Your task to perform on an android device: Open calendar and show me the first week of next month Image 0: 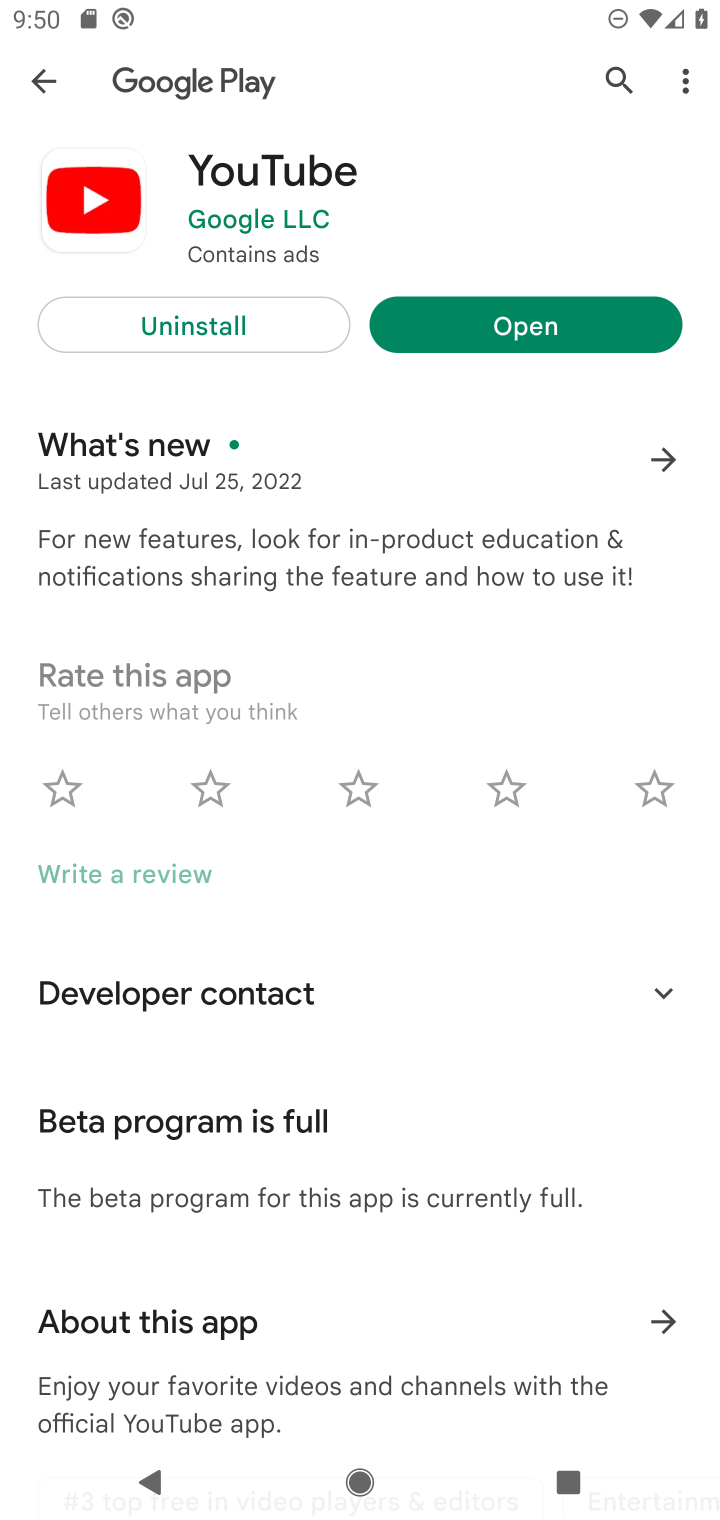
Step 0: press home button
Your task to perform on an android device: Open calendar and show me the first week of next month Image 1: 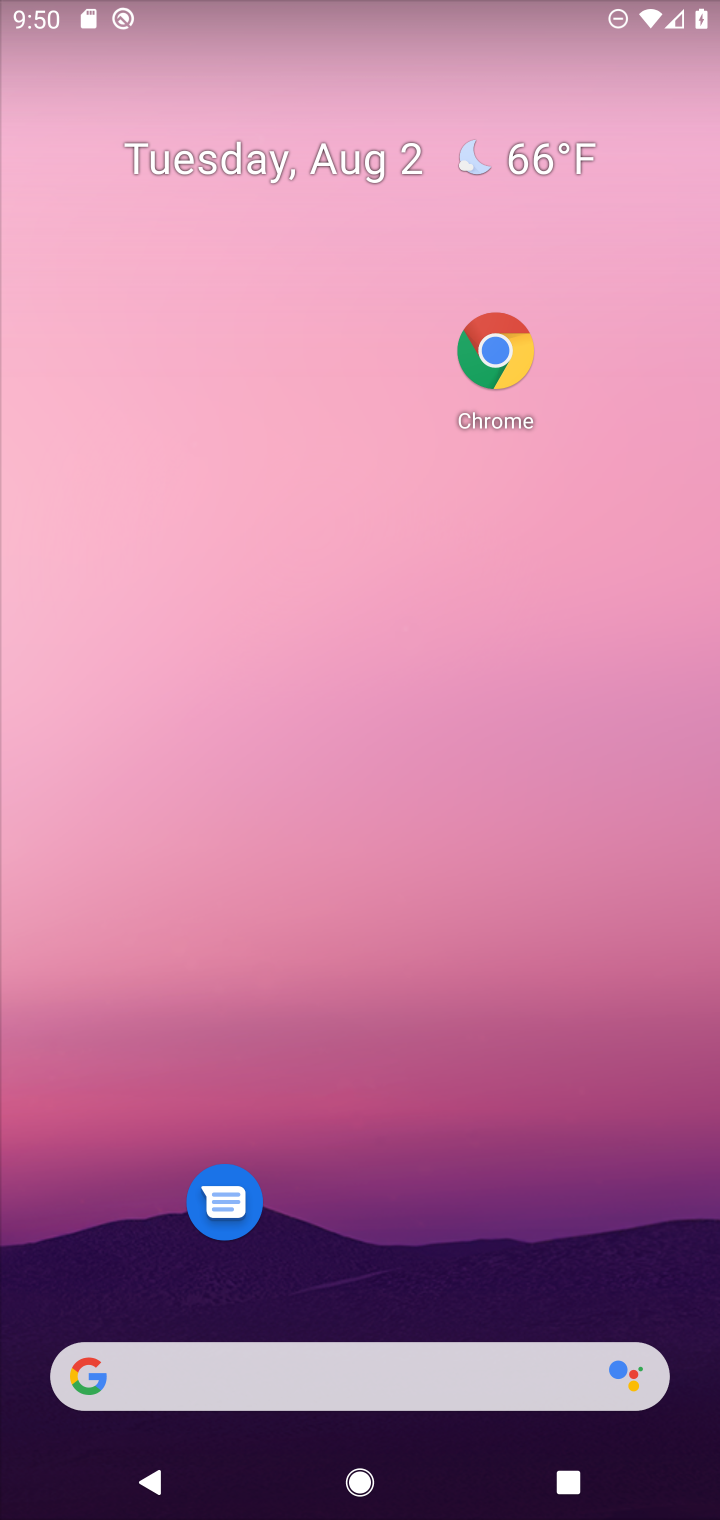
Step 1: drag from (378, 1312) to (369, 103)
Your task to perform on an android device: Open calendar and show me the first week of next month Image 2: 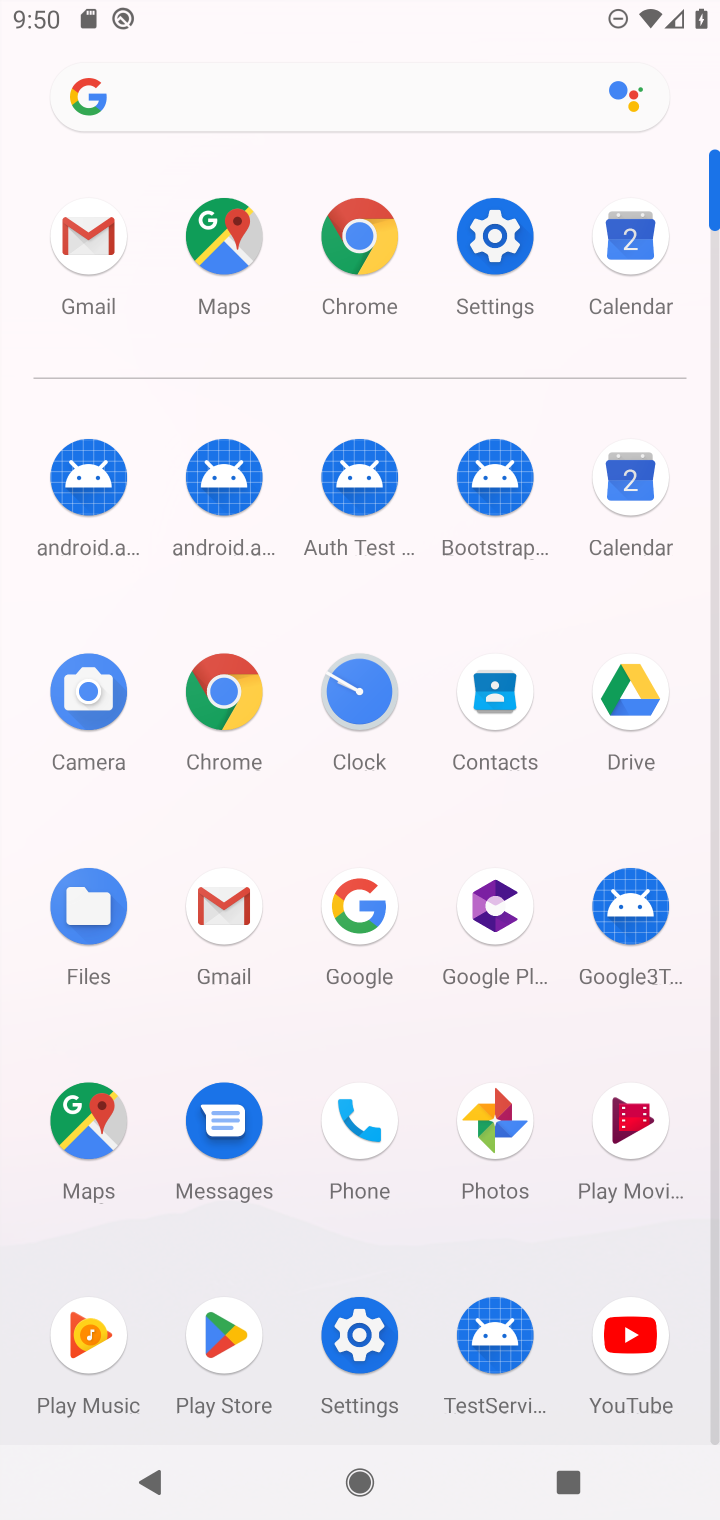
Step 2: click (629, 250)
Your task to perform on an android device: Open calendar and show me the first week of next month Image 3: 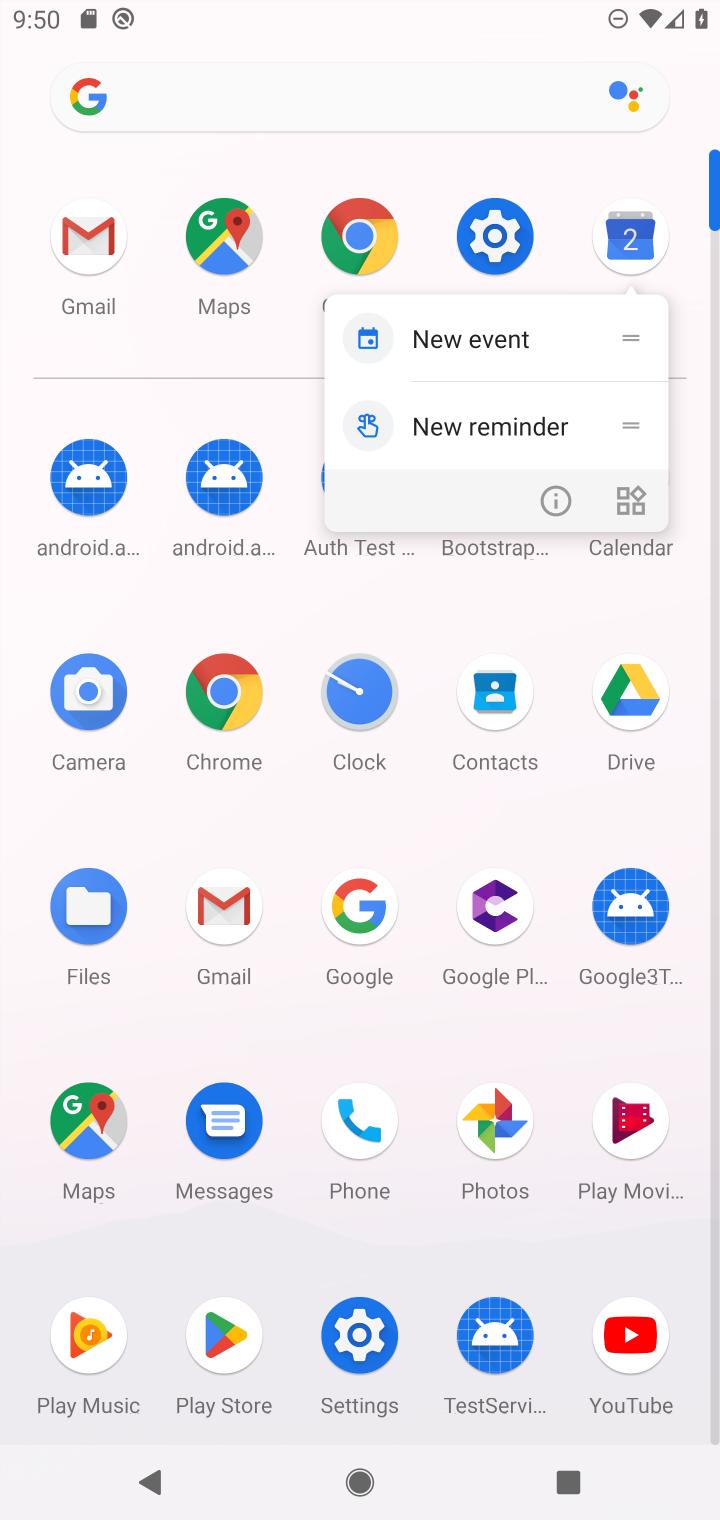
Step 3: click (629, 250)
Your task to perform on an android device: Open calendar and show me the first week of next month Image 4: 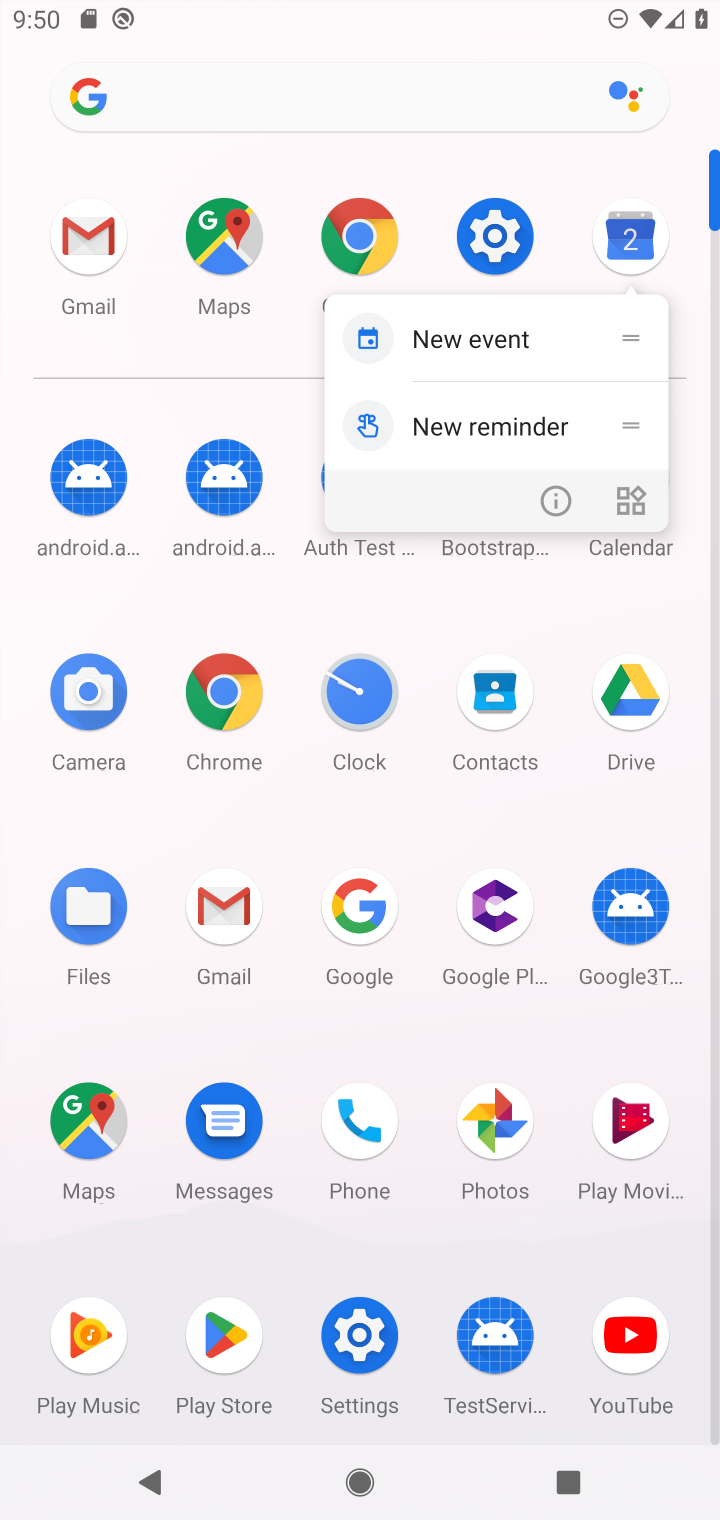
Step 4: click (629, 250)
Your task to perform on an android device: Open calendar and show me the first week of next month Image 5: 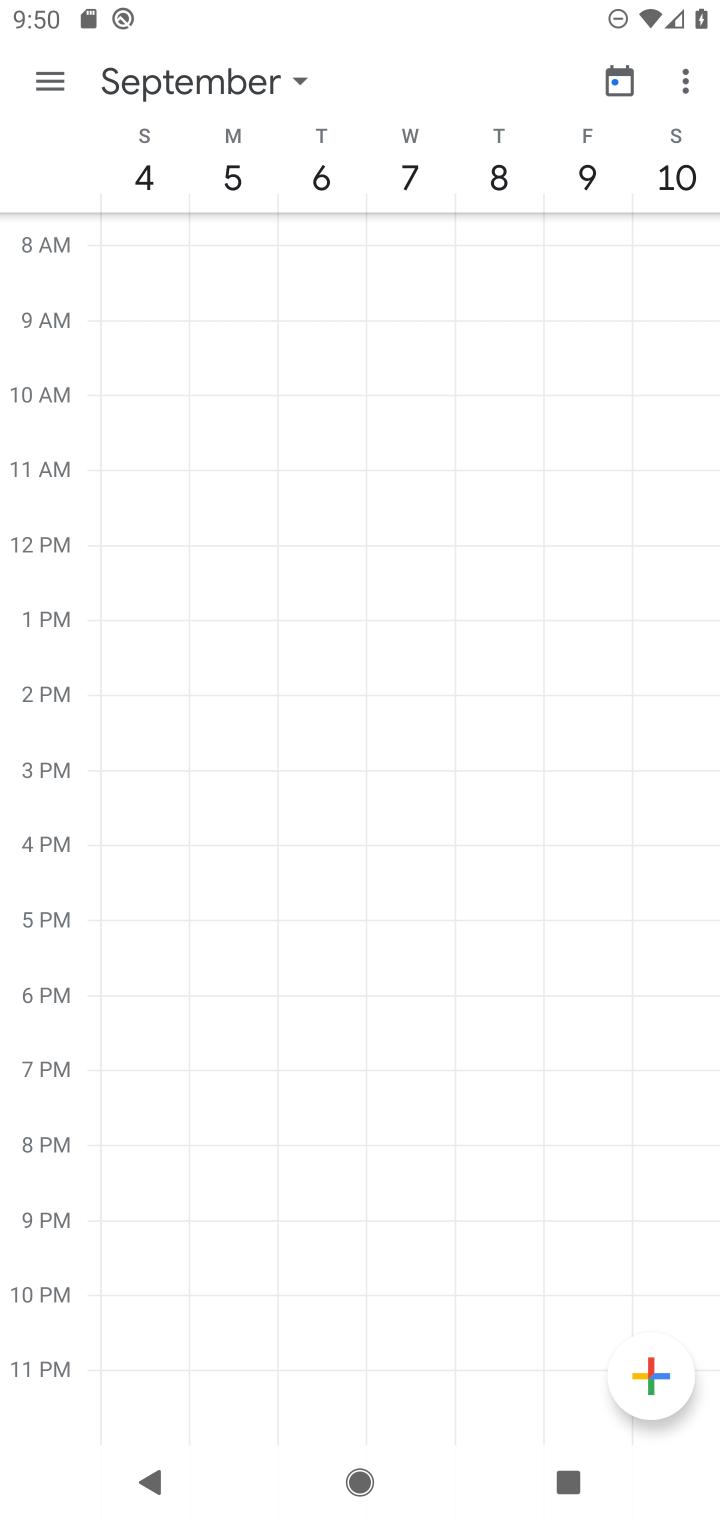
Step 5: task complete